Your task to perform on an android device: What's on my calendar today? Image 0: 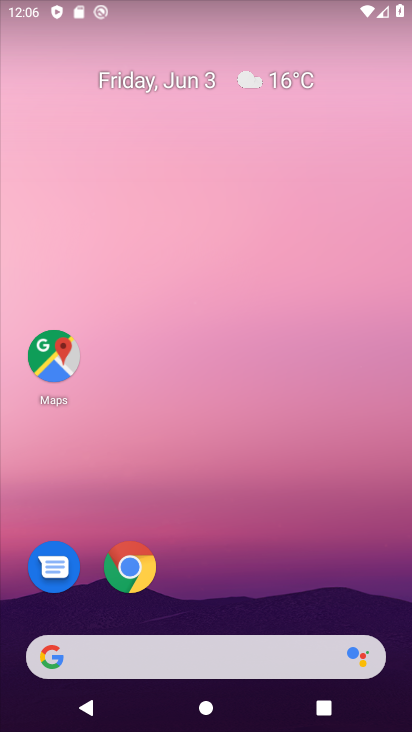
Step 0: drag from (283, 632) to (298, 249)
Your task to perform on an android device: What's on my calendar today? Image 1: 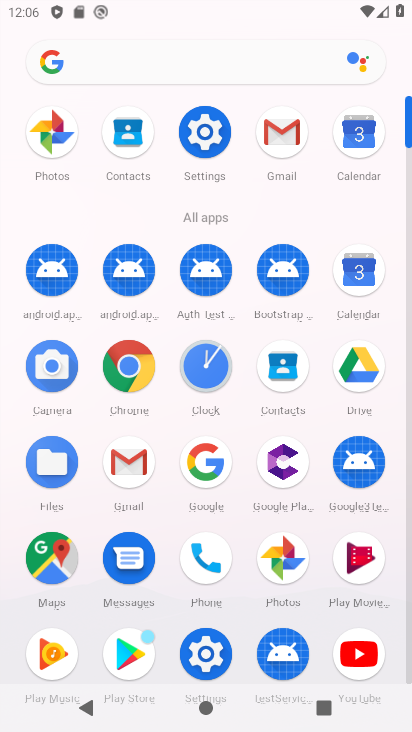
Step 1: click (351, 259)
Your task to perform on an android device: What's on my calendar today? Image 2: 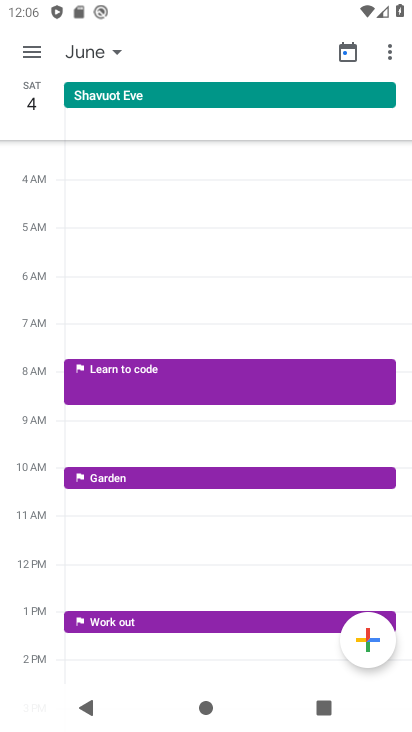
Step 2: click (116, 52)
Your task to perform on an android device: What's on my calendar today? Image 3: 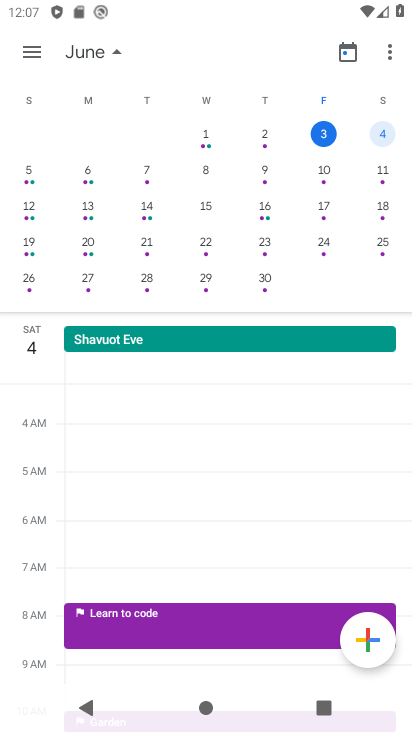
Step 3: click (320, 128)
Your task to perform on an android device: What's on my calendar today? Image 4: 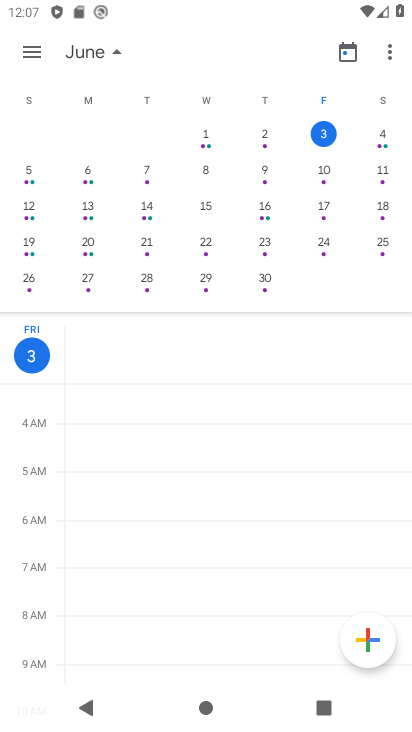
Step 4: task complete